Your task to perform on an android device: check out phone information Image 0: 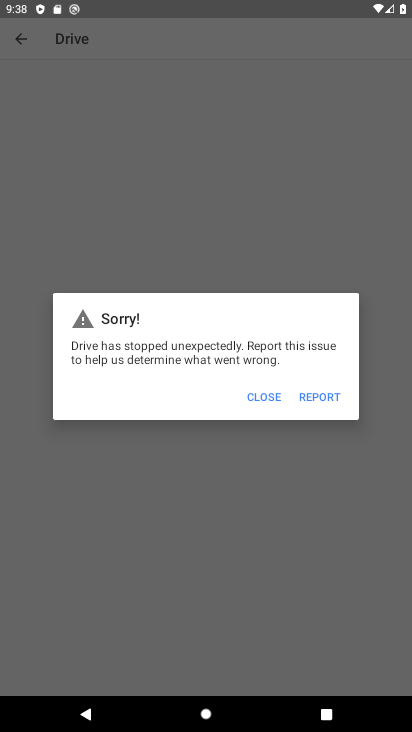
Step 0: press home button
Your task to perform on an android device: check out phone information Image 1: 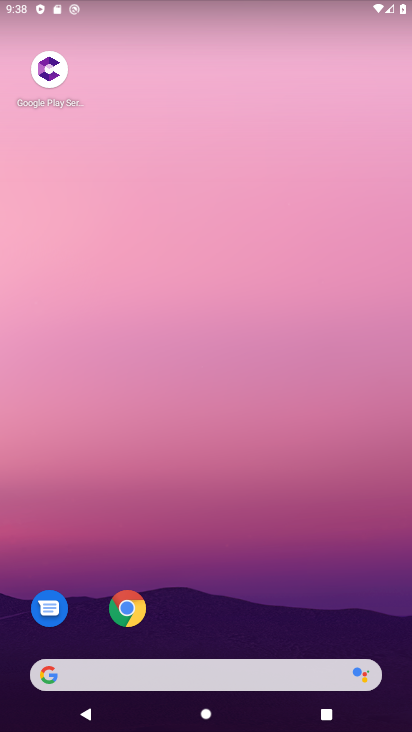
Step 1: drag from (244, 587) to (276, 45)
Your task to perform on an android device: check out phone information Image 2: 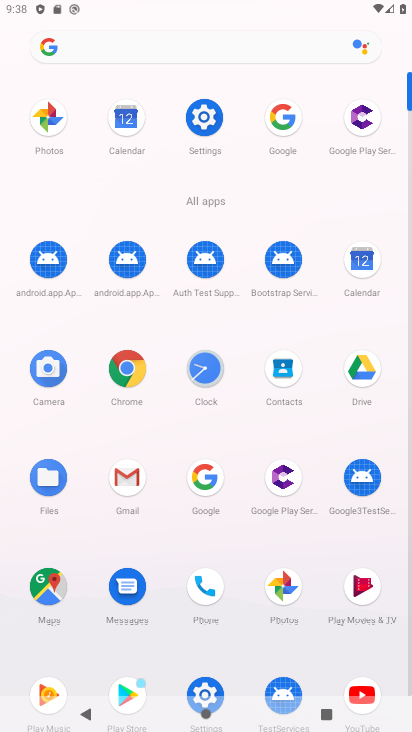
Step 2: click (204, 100)
Your task to perform on an android device: check out phone information Image 3: 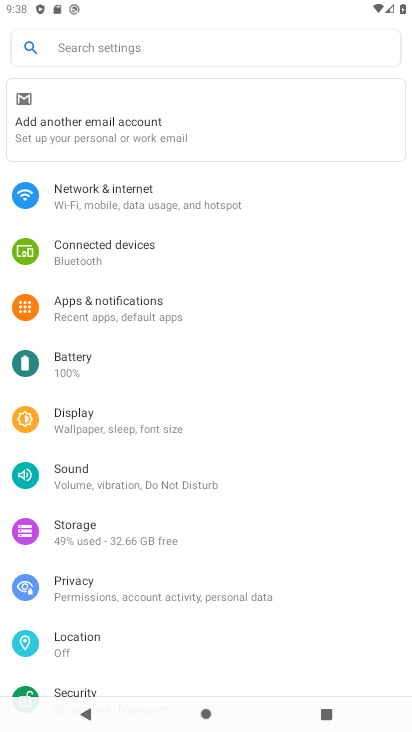
Step 3: drag from (191, 610) to (152, 52)
Your task to perform on an android device: check out phone information Image 4: 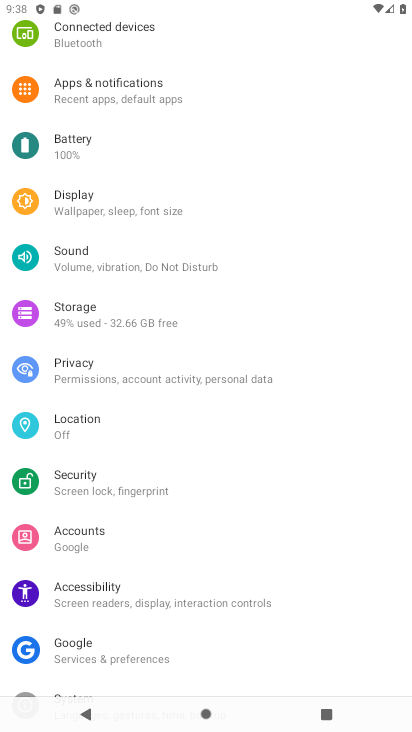
Step 4: drag from (188, 609) to (135, 66)
Your task to perform on an android device: check out phone information Image 5: 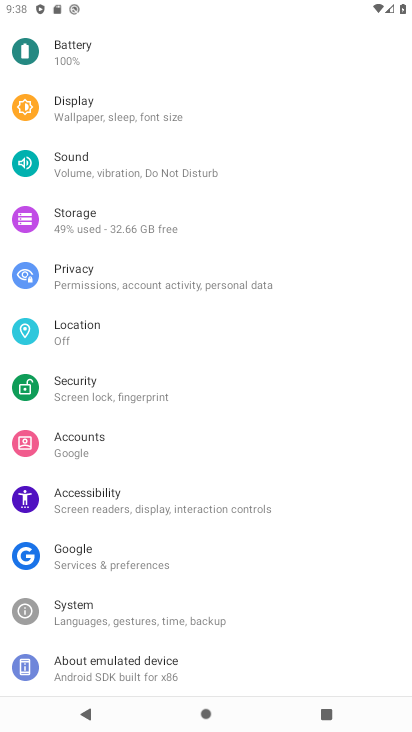
Step 5: click (111, 668)
Your task to perform on an android device: check out phone information Image 6: 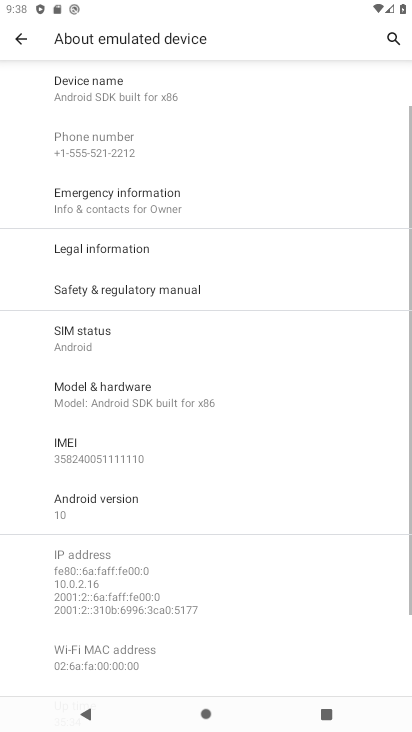
Step 6: task complete